Your task to perform on an android device: Open internet settings Image 0: 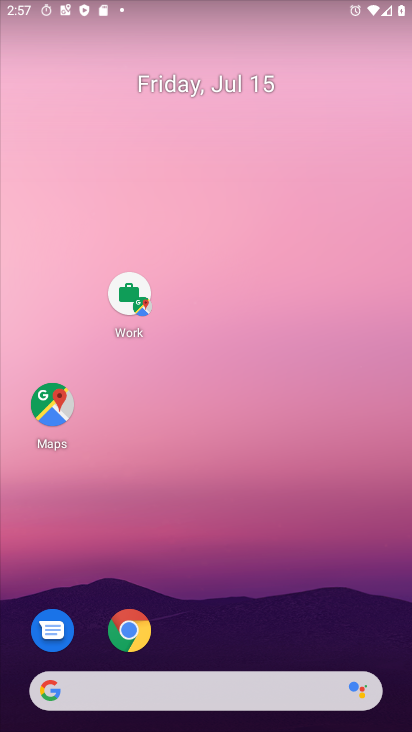
Step 0: drag from (243, 606) to (272, 214)
Your task to perform on an android device: Open internet settings Image 1: 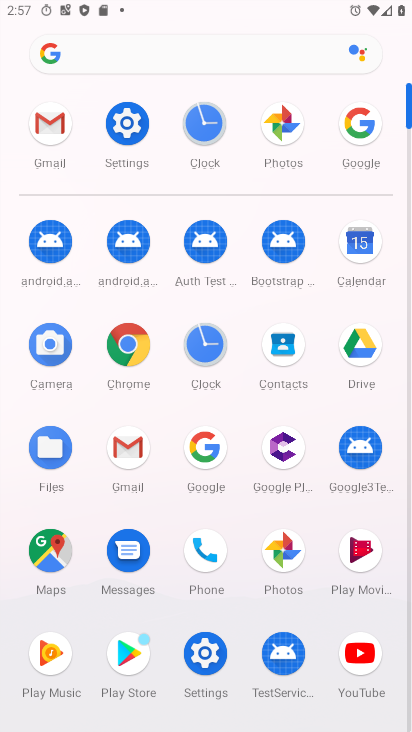
Step 1: click (134, 111)
Your task to perform on an android device: Open internet settings Image 2: 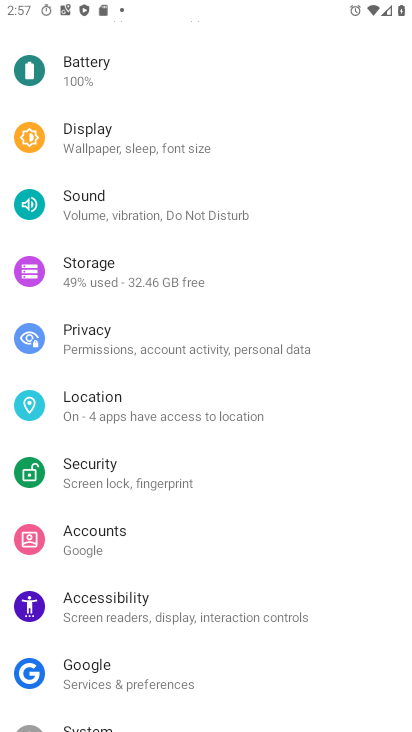
Step 2: drag from (169, 192) to (169, 450)
Your task to perform on an android device: Open internet settings Image 3: 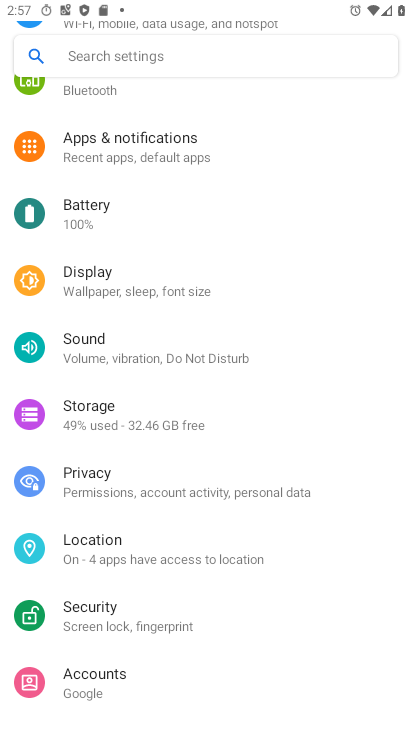
Step 3: drag from (161, 187) to (172, 477)
Your task to perform on an android device: Open internet settings Image 4: 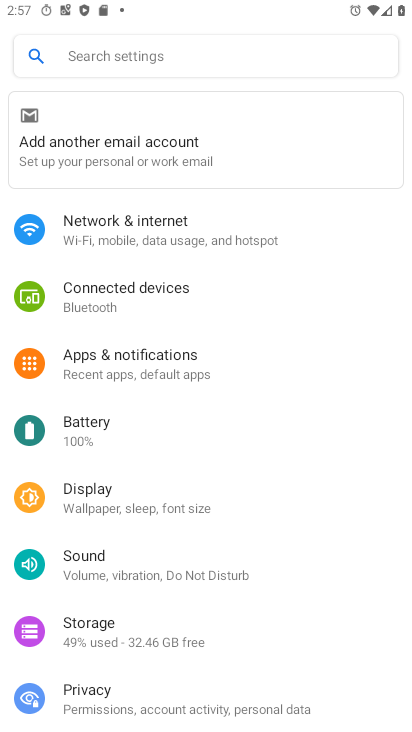
Step 4: click (147, 213)
Your task to perform on an android device: Open internet settings Image 5: 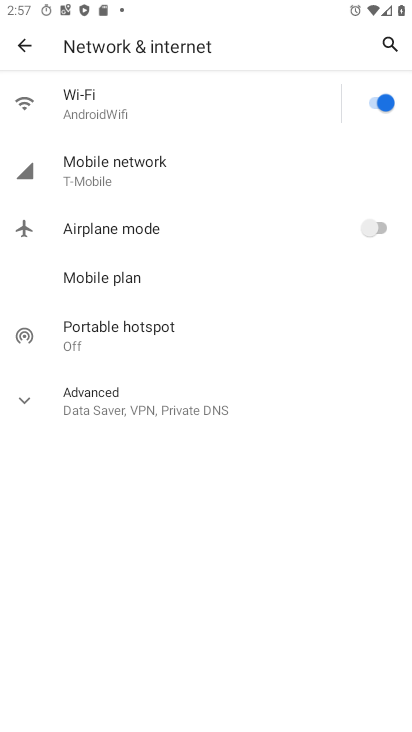
Step 5: task complete